Your task to perform on an android device: install app "Microsoft Excel" Image 0: 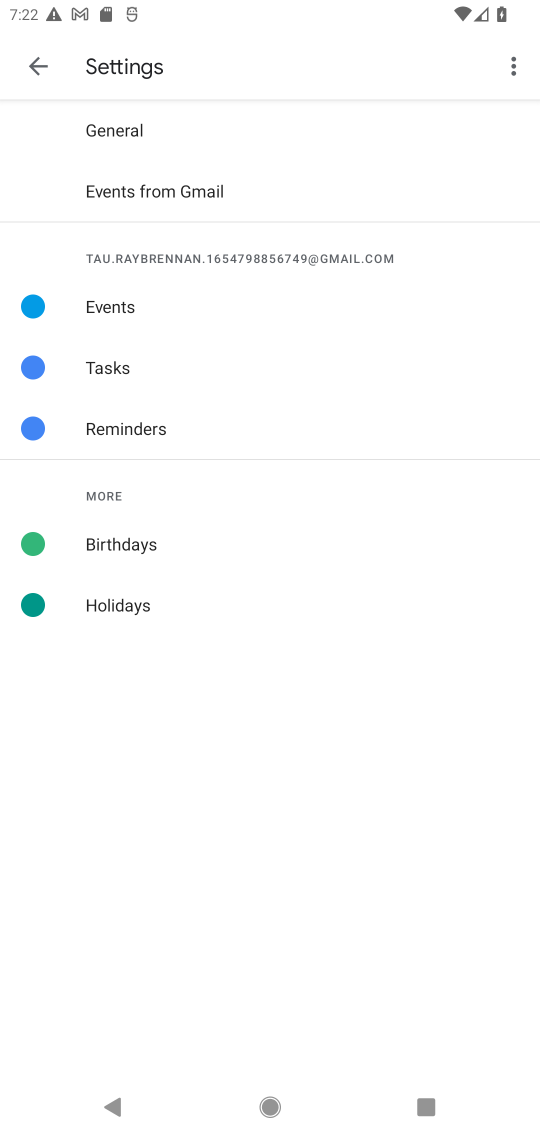
Step 0: press home button
Your task to perform on an android device: install app "Microsoft Excel" Image 1: 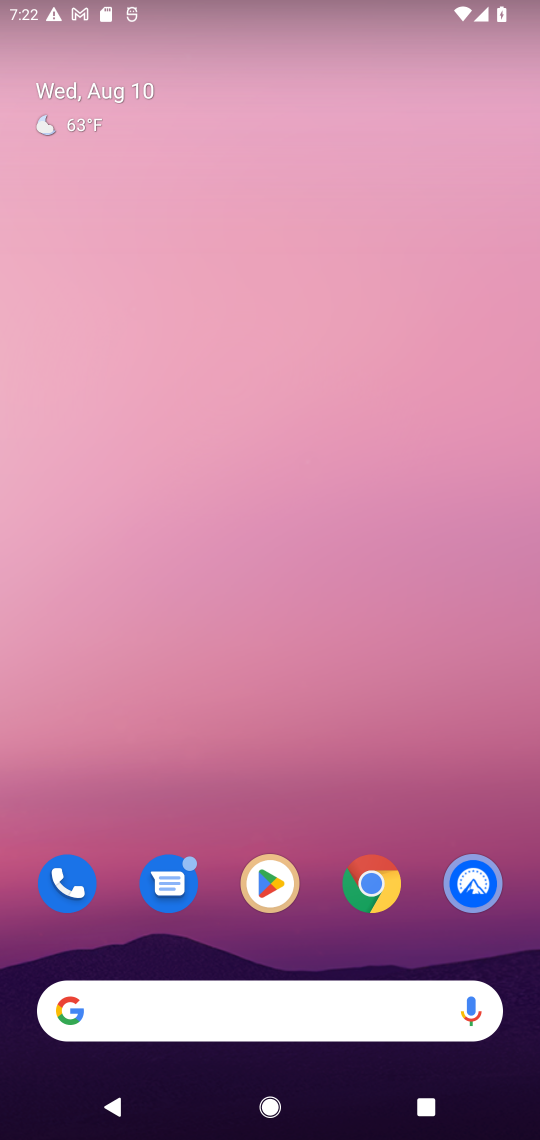
Step 1: click (266, 879)
Your task to perform on an android device: install app "Microsoft Excel" Image 2: 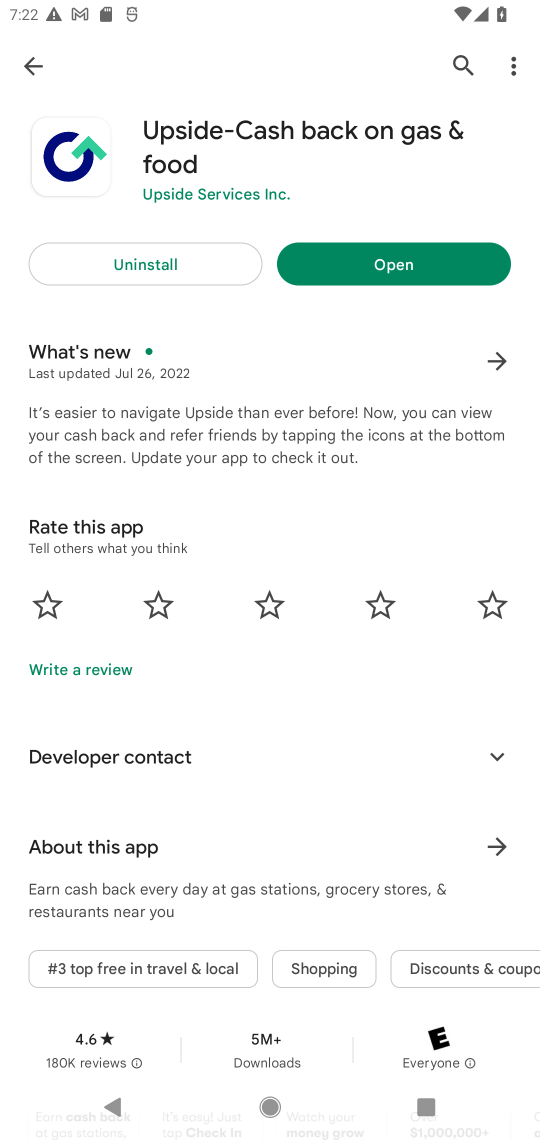
Step 2: click (453, 58)
Your task to perform on an android device: install app "Microsoft Excel" Image 3: 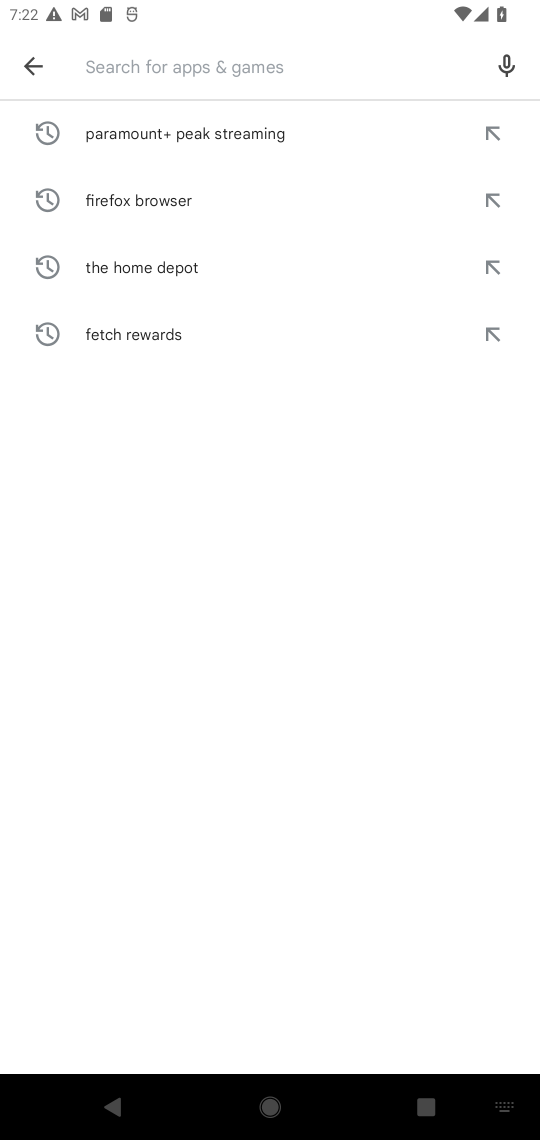
Step 3: type "Microsoft Excel"
Your task to perform on an android device: install app "Microsoft Excel" Image 4: 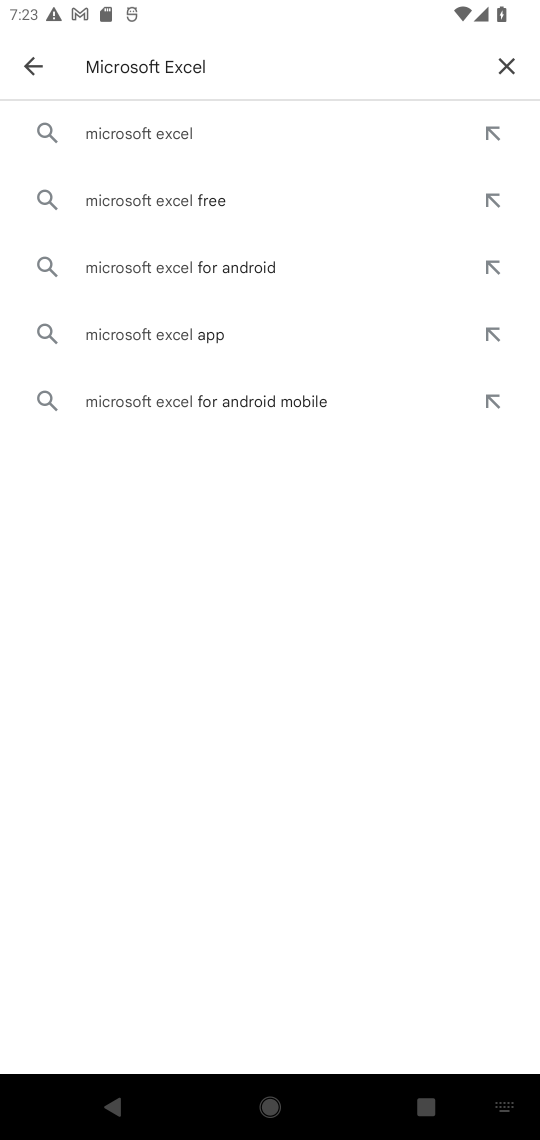
Step 4: click (183, 136)
Your task to perform on an android device: install app "Microsoft Excel" Image 5: 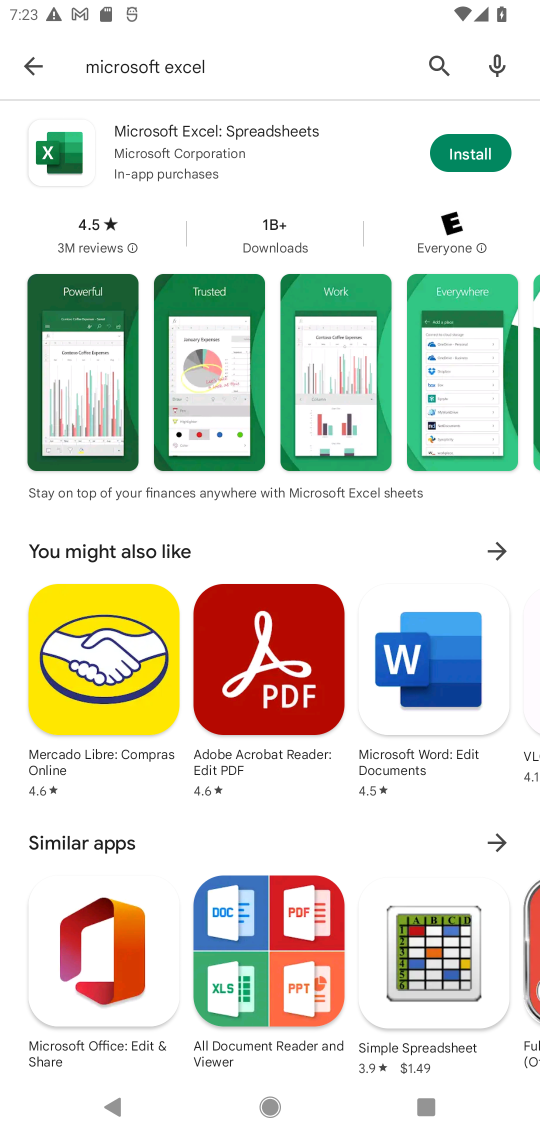
Step 5: click (465, 156)
Your task to perform on an android device: install app "Microsoft Excel" Image 6: 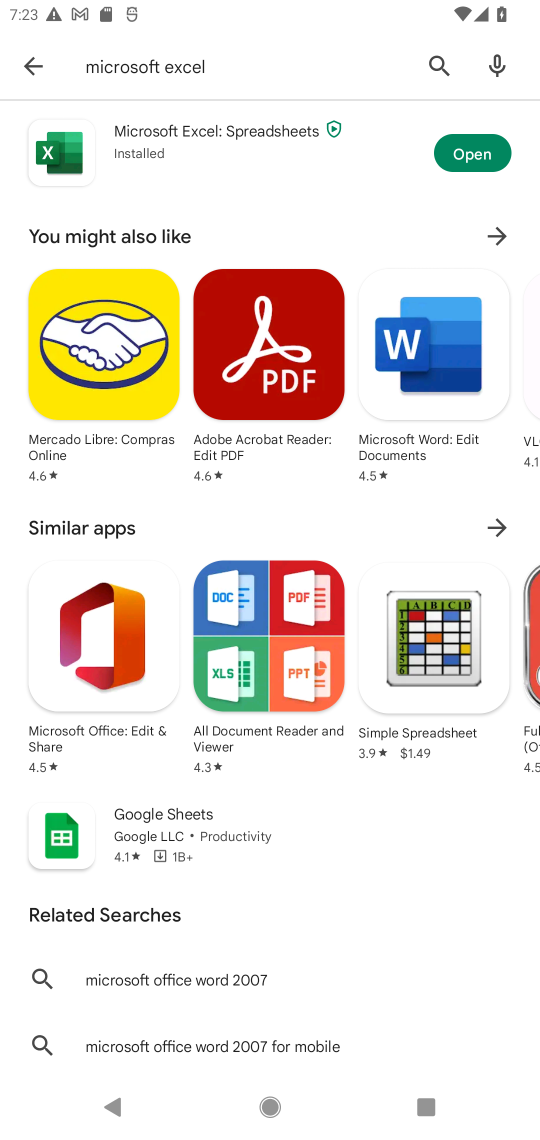
Step 6: task complete